Your task to perform on an android device: Open location settings Image 0: 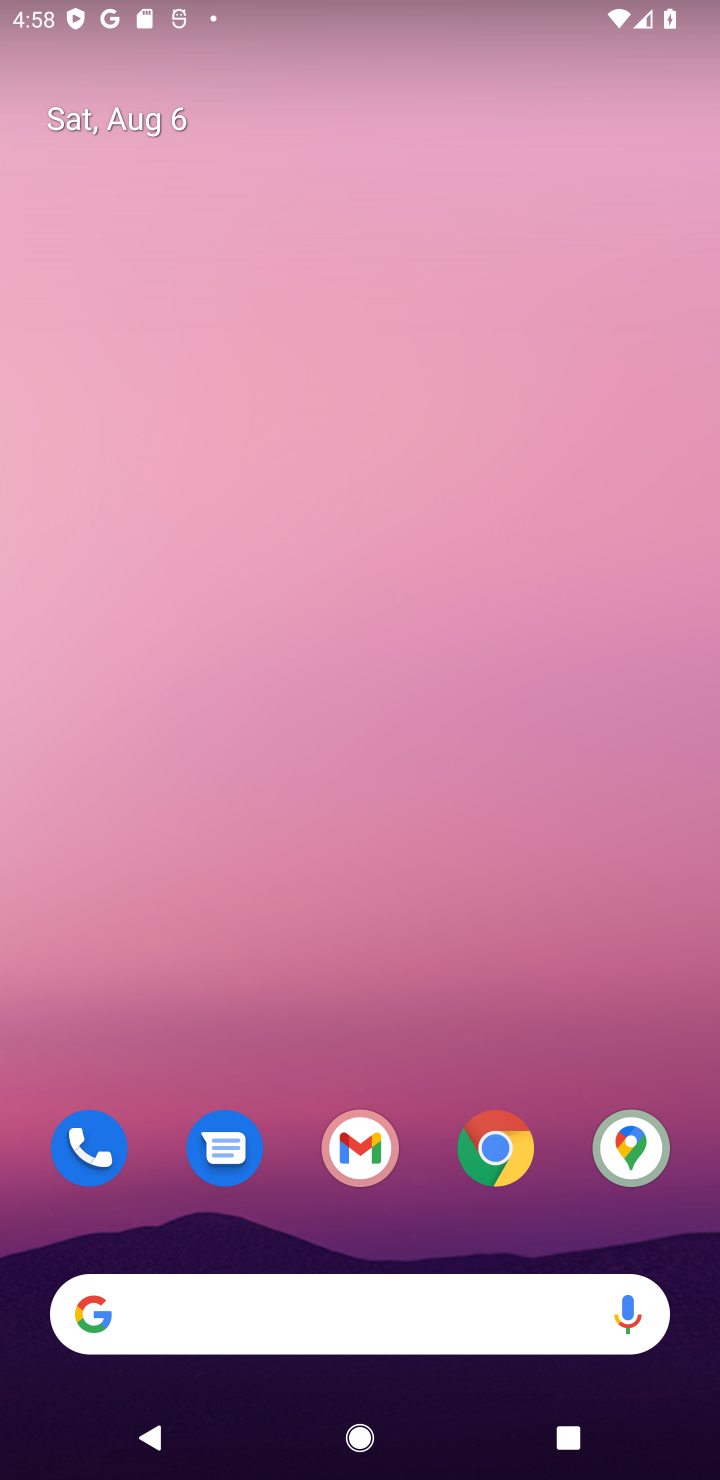
Step 0: drag from (292, 1176) to (719, 1239)
Your task to perform on an android device: Open location settings Image 1: 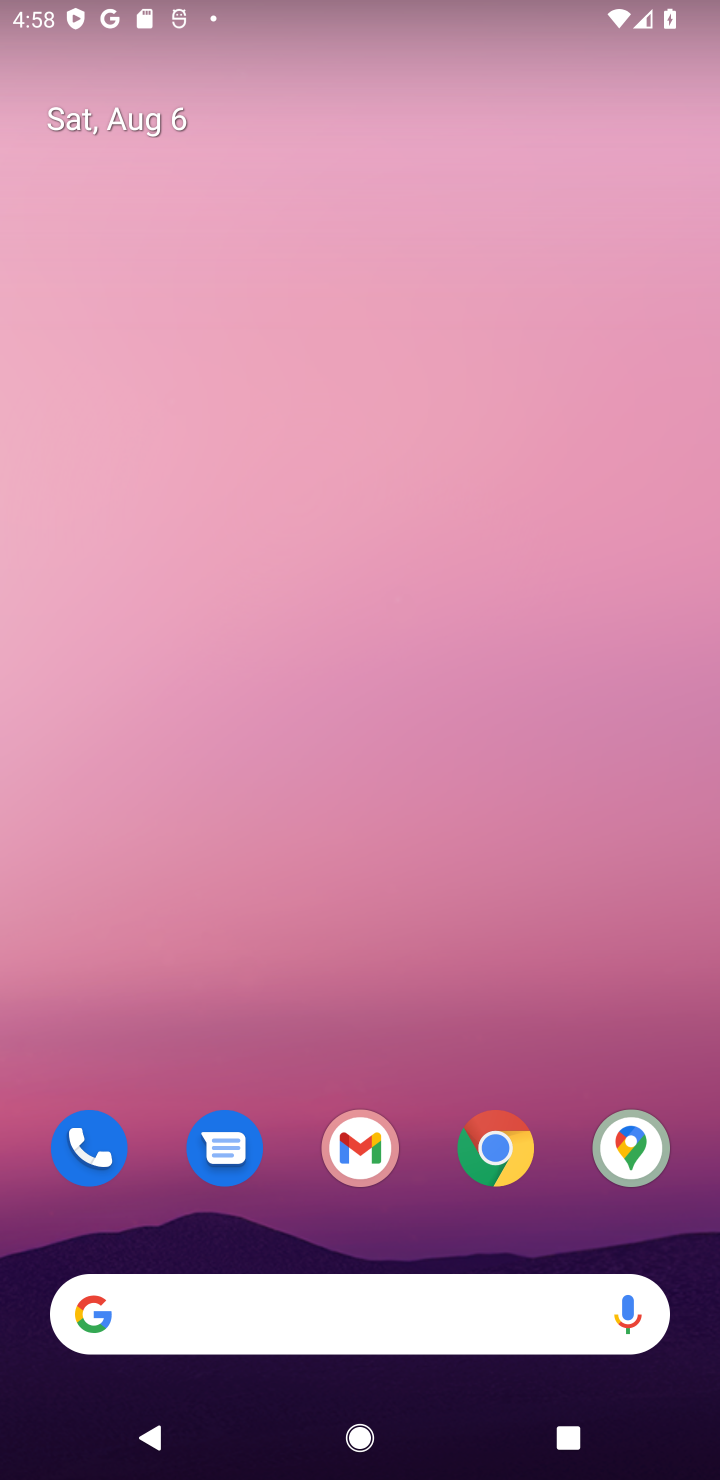
Step 1: drag from (434, 1202) to (419, 124)
Your task to perform on an android device: Open location settings Image 2: 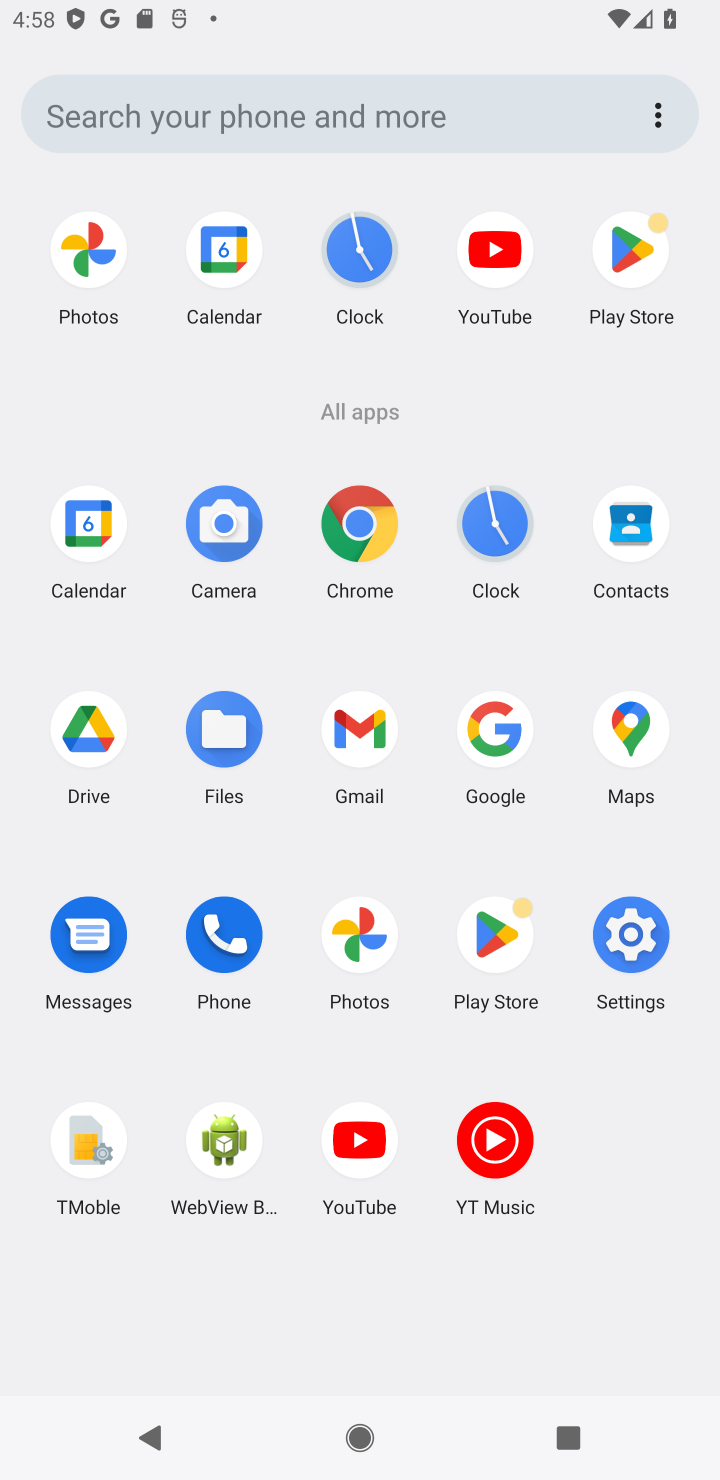
Step 2: click (624, 946)
Your task to perform on an android device: Open location settings Image 3: 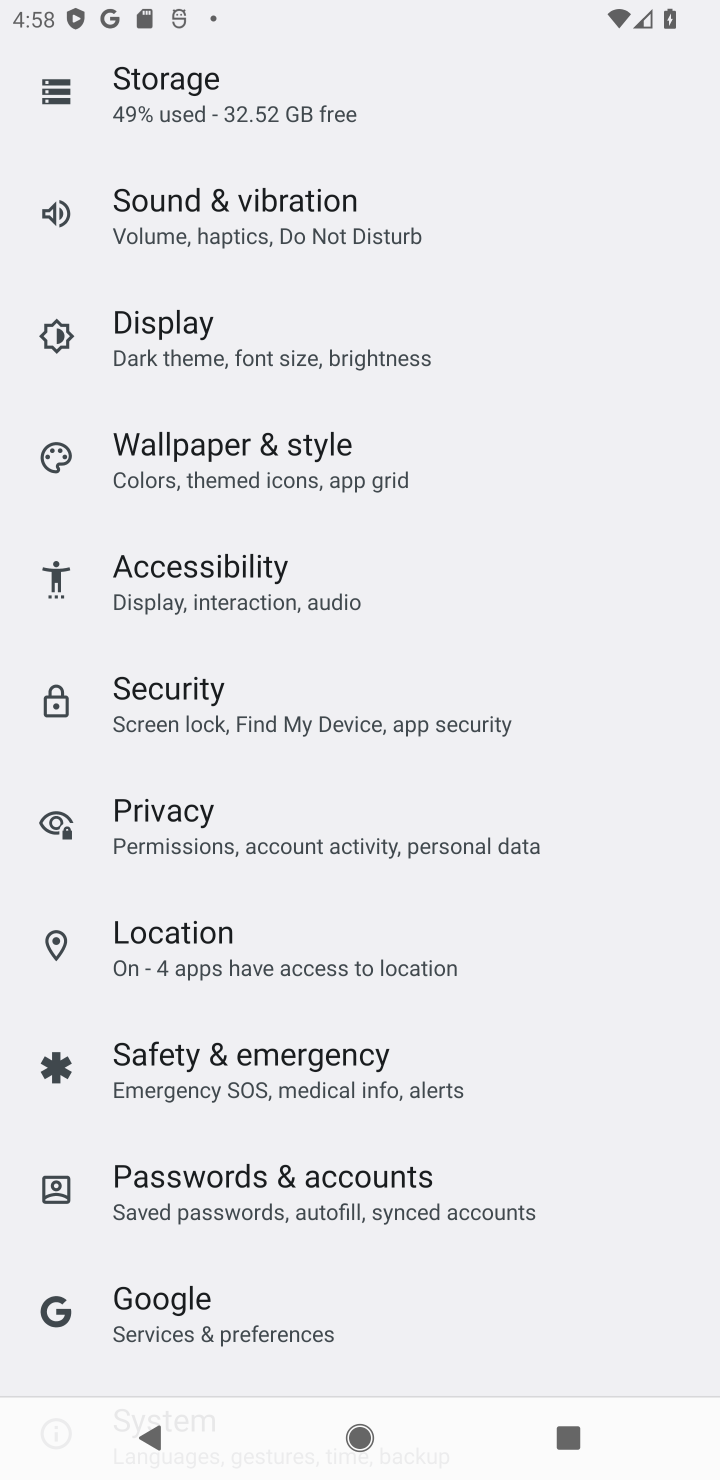
Step 3: click (232, 947)
Your task to perform on an android device: Open location settings Image 4: 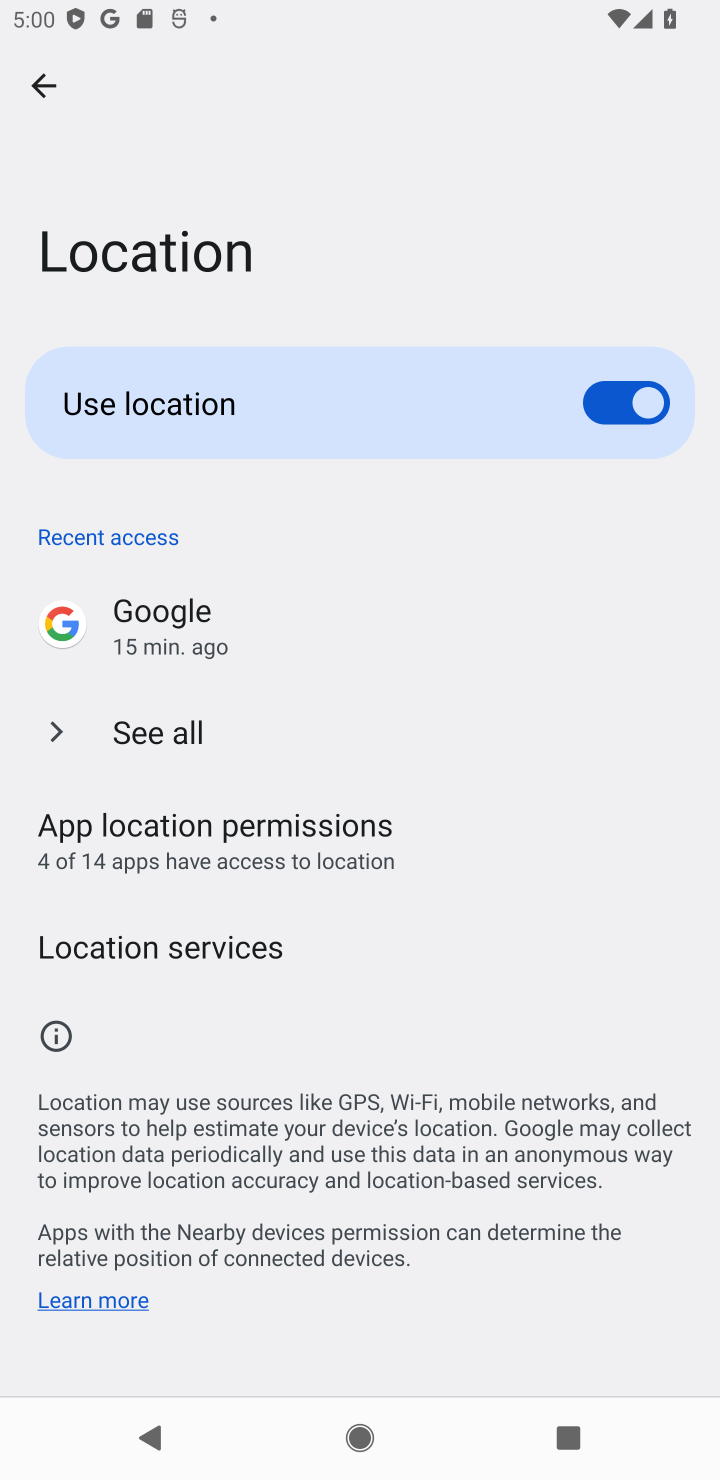
Step 4: task complete